Your task to perform on an android device: Go to battery settings Image 0: 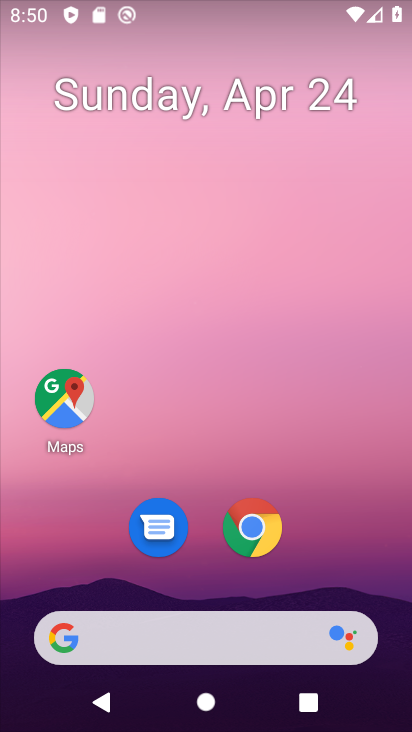
Step 0: drag from (313, 542) to (295, 71)
Your task to perform on an android device: Go to battery settings Image 1: 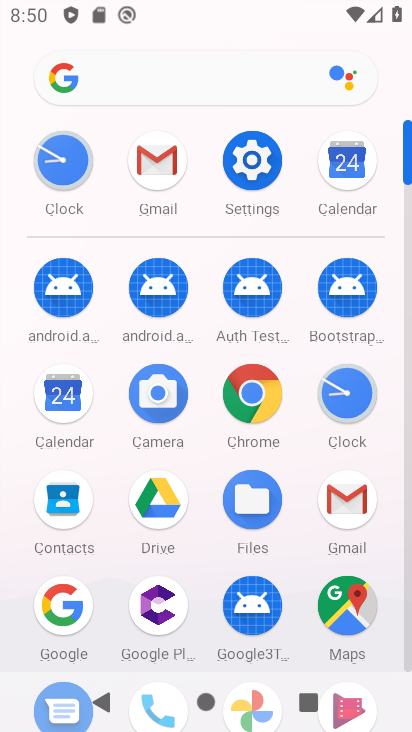
Step 1: click (261, 151)
Your task to perform on an android device: Go to battery settings Image 2: 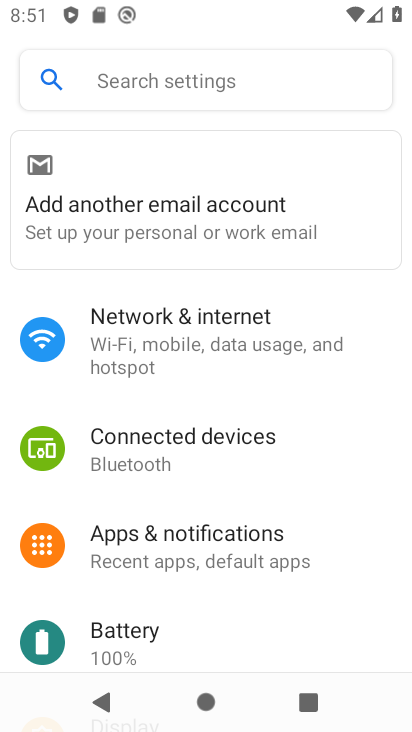
Step 2: click (193, 634)
Your task to perform on an android device: Go to battery settings Image 3: 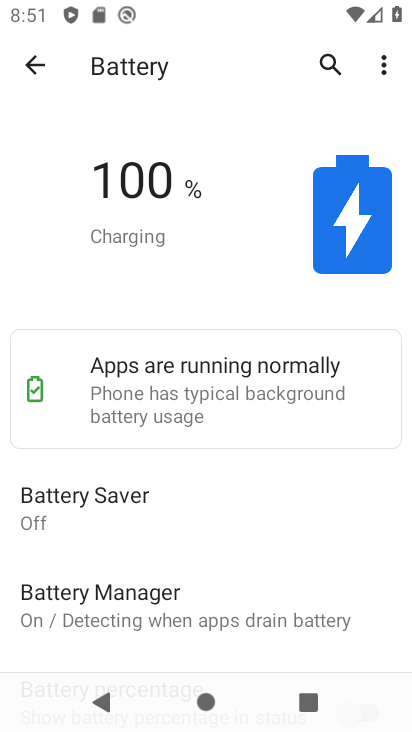
Step 3: task complete